Your task to perform on an android device: turn off airplane mode Image 0: 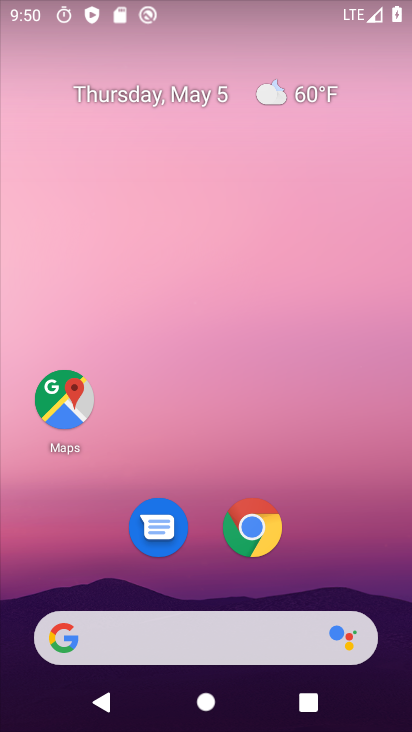
Step 0: drag from (286, 560) to (310, 105)
Your task to perform on an android device: turn off airplane mode Image 1: 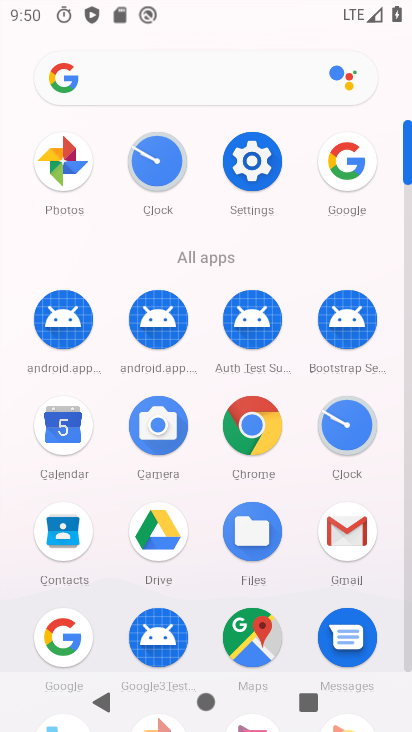
Step 1: drag from (247, 161) to (41, 182)
Your task to perform on an android device: turn off airplane mode Image 2: 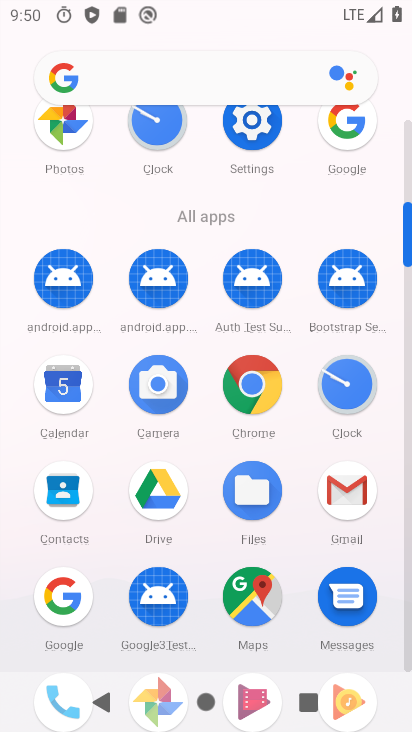
Step 2: drag from (255, 122) to (90, 177)
Your task to perform on an android device: turn off airplane mode Image 3: 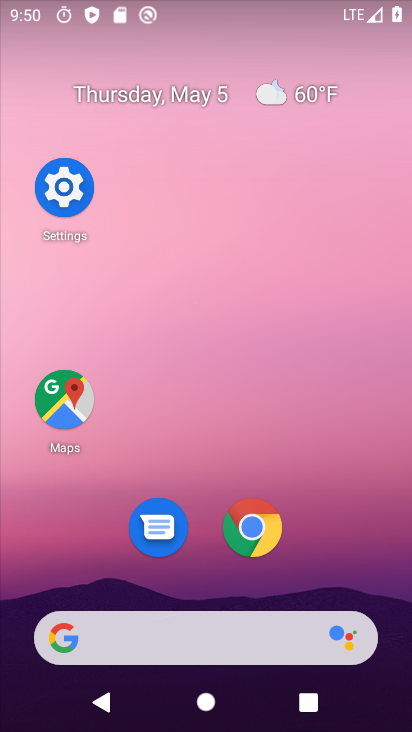
Step 3: click (80, 179)
Your task to perform on an android device: turn off airplane mode Image 4: 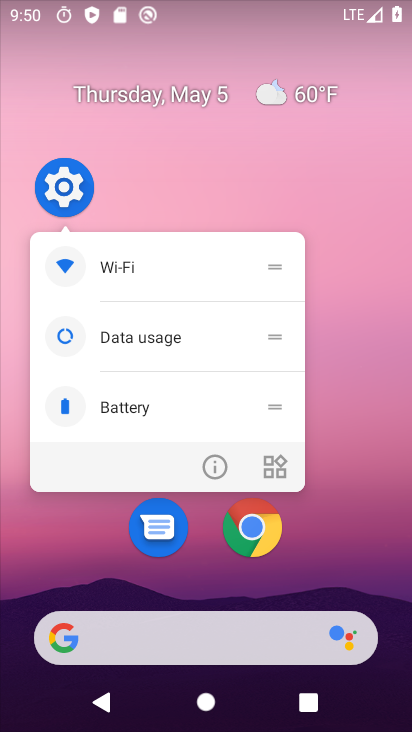
Step 4: click (71, 188)
Your task to perform on an android device: turn off airplane mode Image 5: 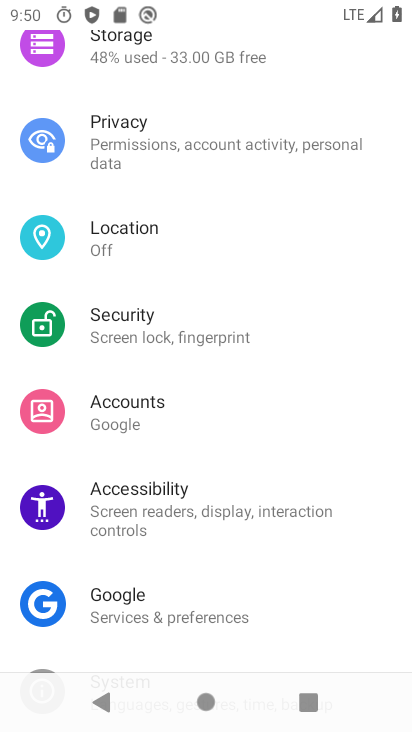
Step 5: drag from (222, 167) to (215, 554)
Your task to perform on an android device: turn off airplane mode Image 6: 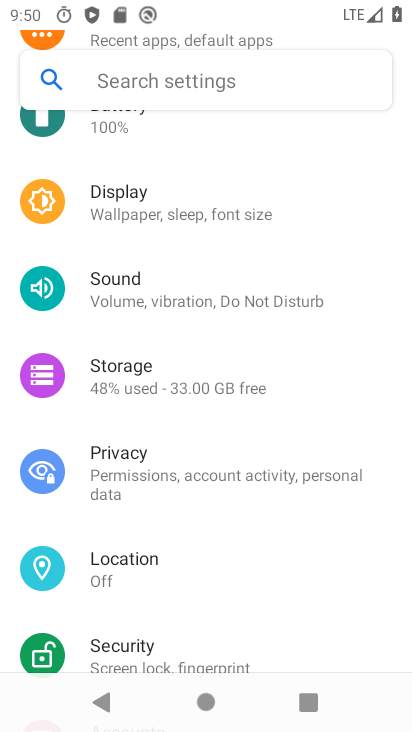
Step 6: drag from (282, 186) to (275, 668)
Your task to perform on an android device: turn off airplane mode Image 7: 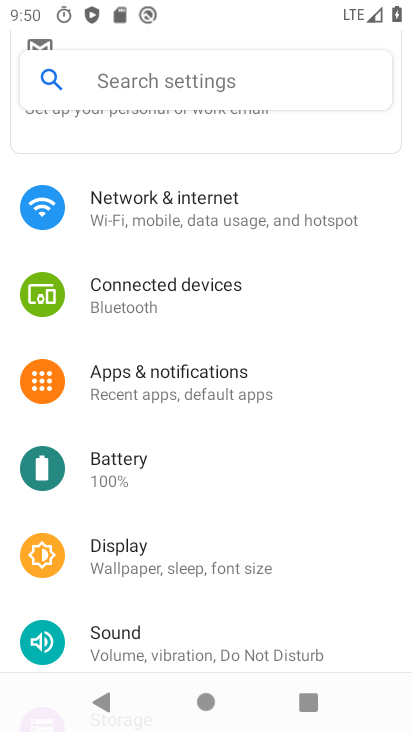
Step 7: click (250, 207)
Your task to perform on an android device: turn off airplane mode Image 8: 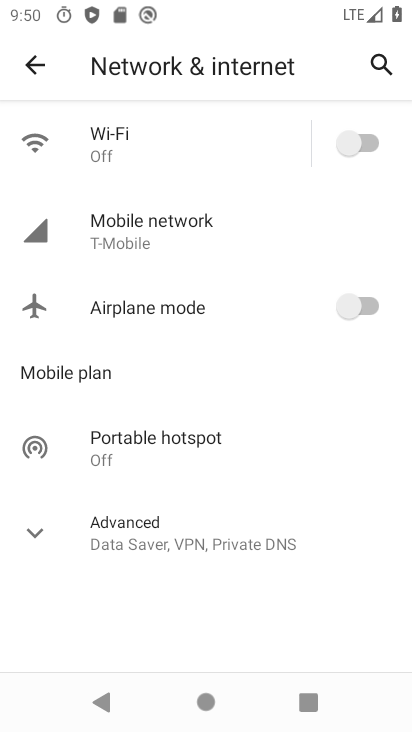
Step 8: task complete